Your task to perform on an android device: clear history in the chrome app Image 0: 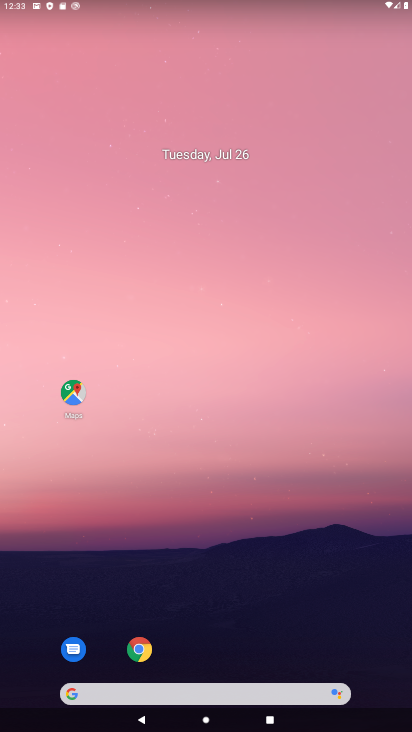
Step 0: click (153, 649)
Your task to perform on an android device: clear history in the chrome app Image 1: 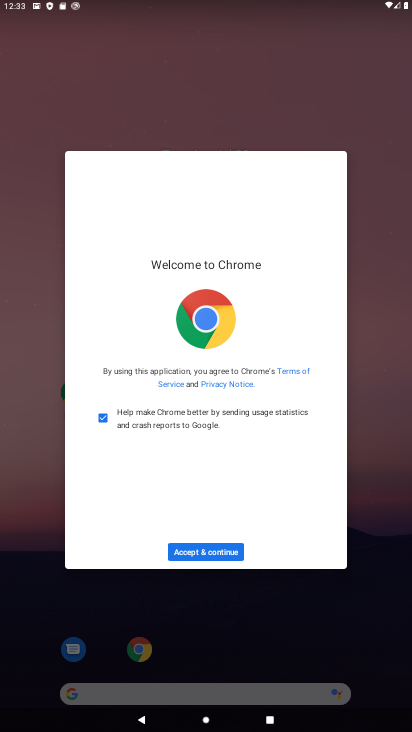
Step 1: click (222, 555)
Your task to perform on an android device: clear history in the chrome app Image 2: 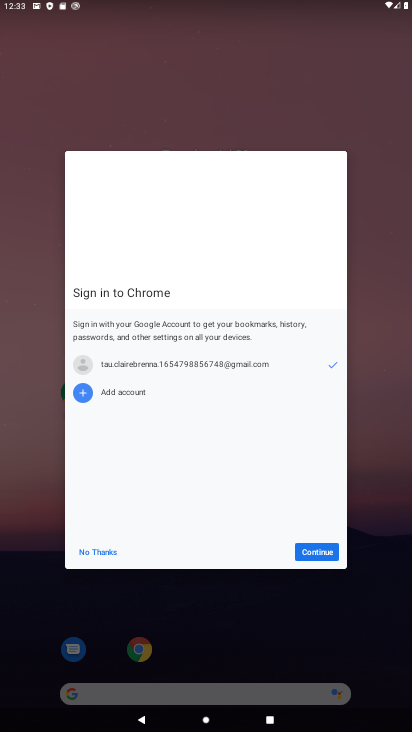
Step 2: click (306, 551)
Your task to perform on an android device: clear history in the chrome app Image 3: 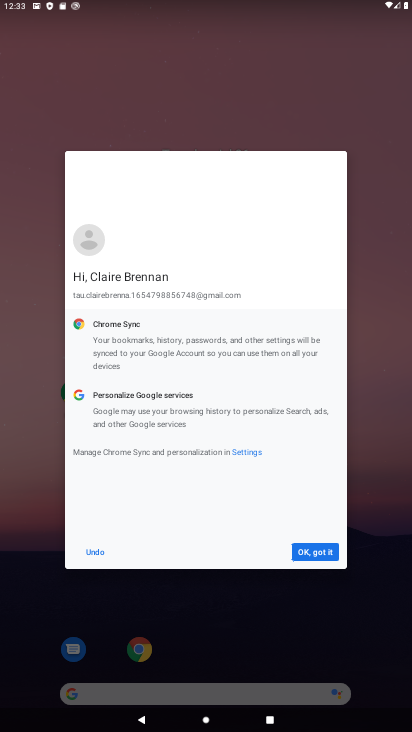
Step 3: click (306, 551)
Your task to perform on an android device: clear history in the chrome app Image 4: 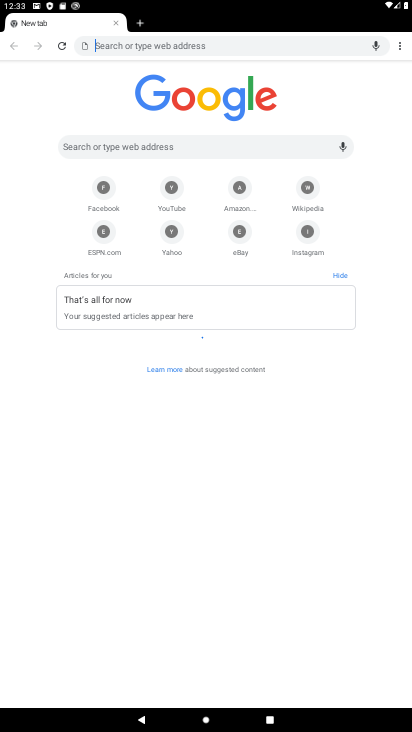
Step 4: click (395, 42)
Your task to perform on an android device: clear history in the chrome app Image 5: 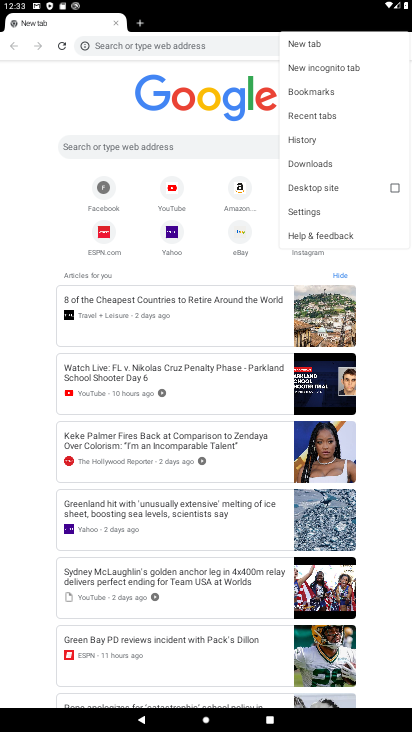
Step 5: click (311, 138)
Your task to perform on an android device: clear history in the chrome app Image 6: 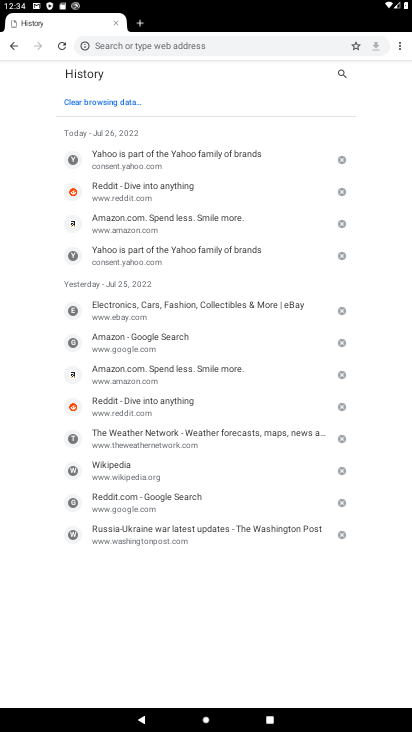
Step 6: click (121, 100)
Your task to perform on an android device: clear history in the chrome app Image 7: 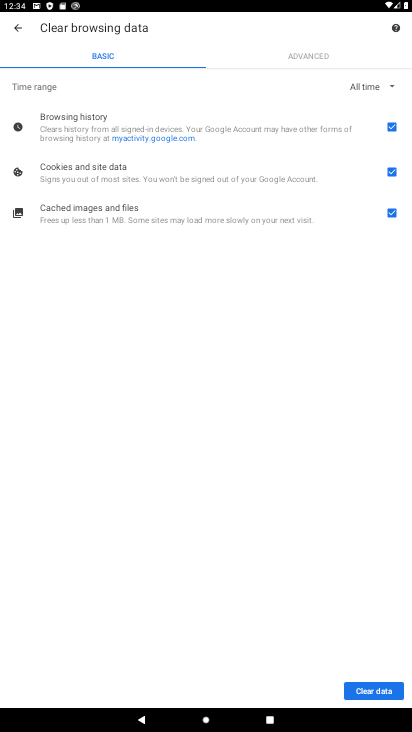
Step 7: click (377, 683)
Your task to perform on an android device: clear history in the chrome app Image 8: 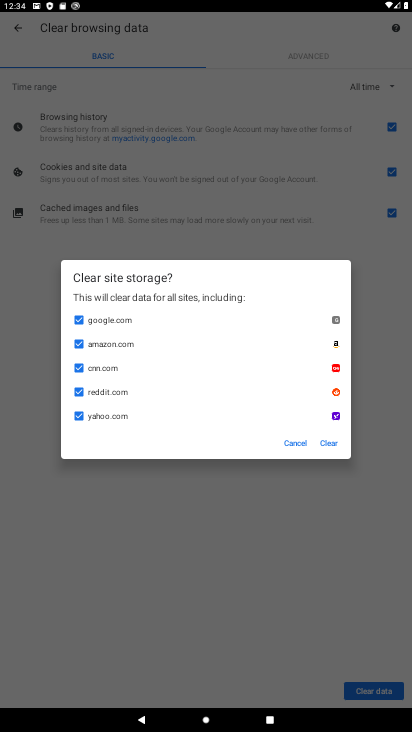
Step 8: click (335, 448)
Your task to perform on an android device: clear history in the chrome app Image 9: 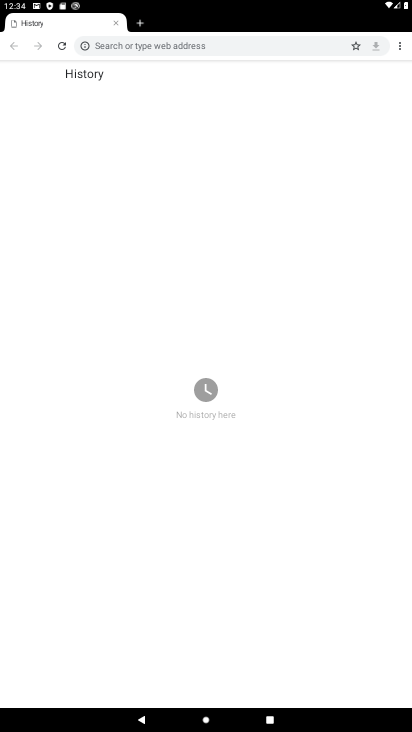
Step 9: task complete